Your task to perform on an android device: toggle javascript in the chrome app Image 0: 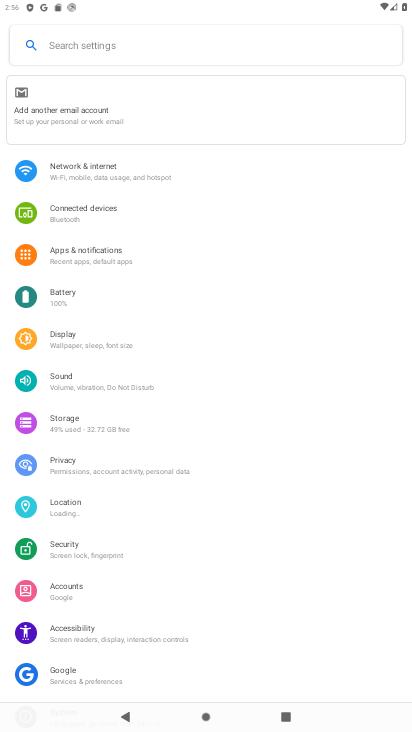
Step 0: press home button
Your task to perform on an android device: toggle javascript in the chrome app Image 1: 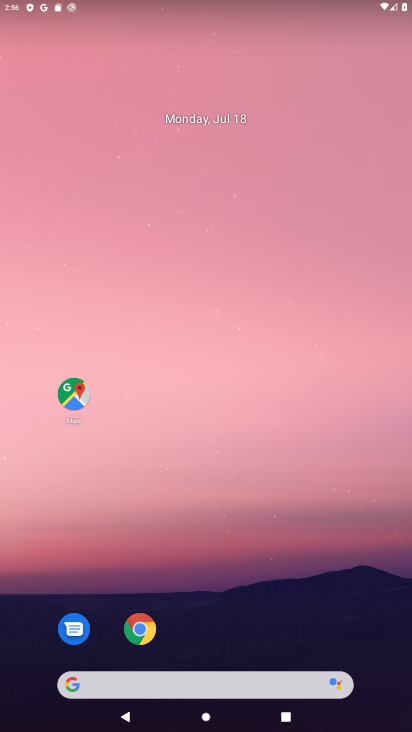
Step 1: drag from (190, 663) to (190, 156)
Your task to perform on an android device: toggle javascript in the chrome app Image 2: 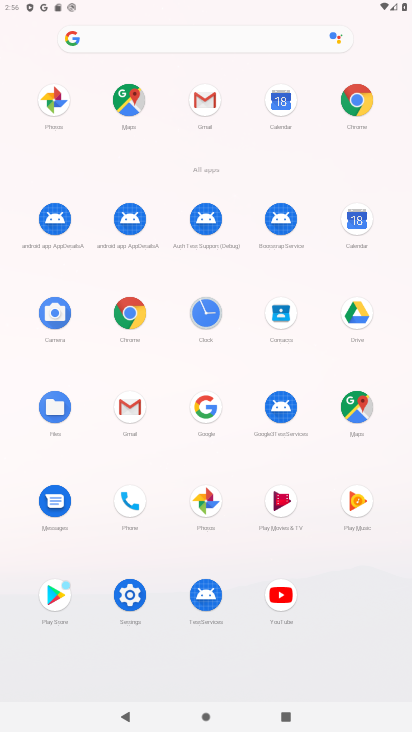
Step 2: click (109, 309)
Your task to perform on an android device: toggle javascript in the chrome app Image 3: 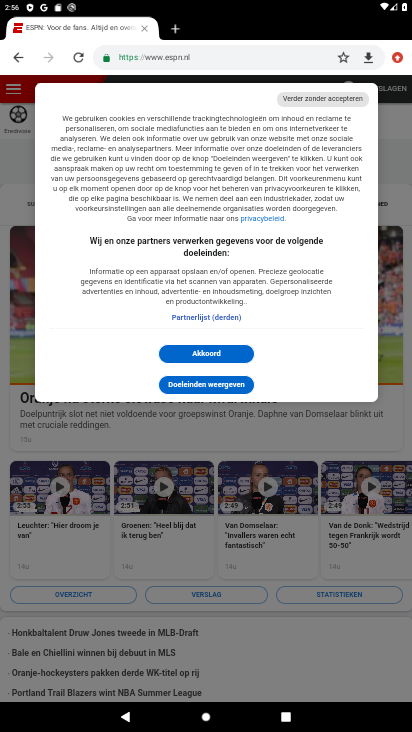
Step 3: drag from (397, 55) to (266, 421)
Your task to perform on an android device: toggle javascript in the chrome app Image 4: 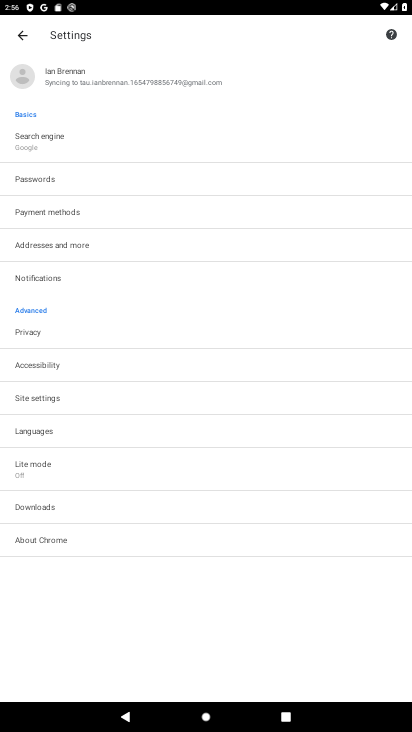
Step 4: click (60, 397)
Your task to perform on an android device: toggle javascript in the chrome app Image 5: 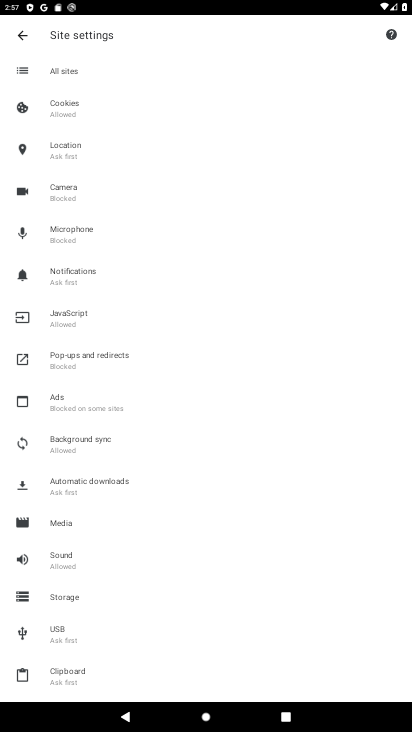
Step 5: click (72, 320)
Your task to perform on an android device: toggle javascript in the chrome app Image 6: 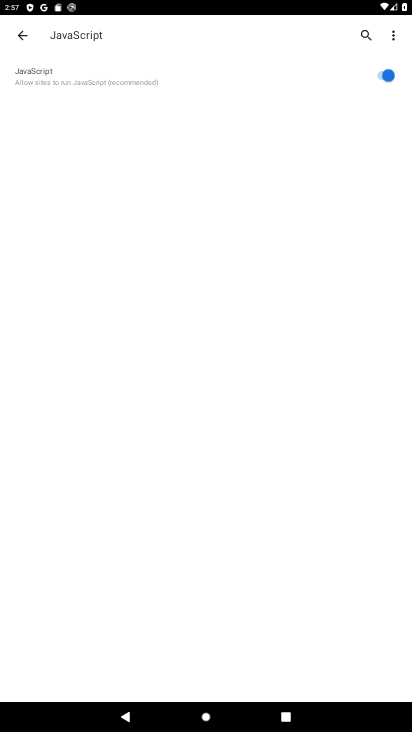
Step 6: click (382, 77)
Your task to perform on an android device: toggle javascript in the chrome app Image 7: 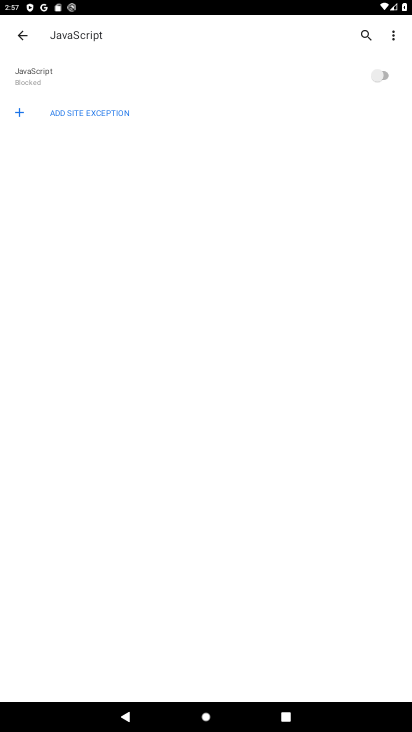
Step 7: task complete